Your task to perform on an android device: What's the weather? Image 0: 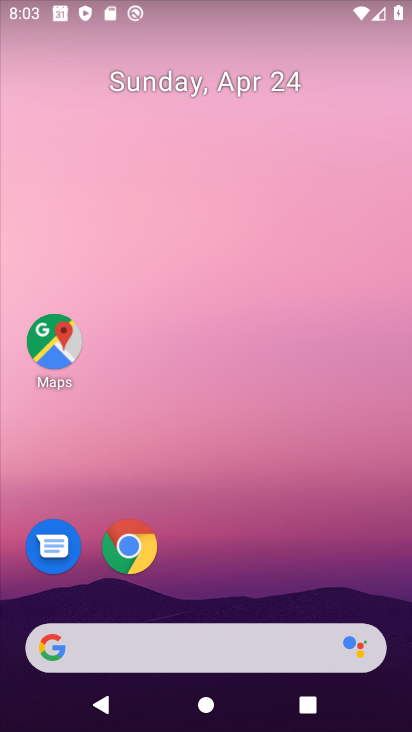
Step 0: drag from (300, 547) to (308, 217)
Your task to perform on an android device: What's the weather? Image 1: 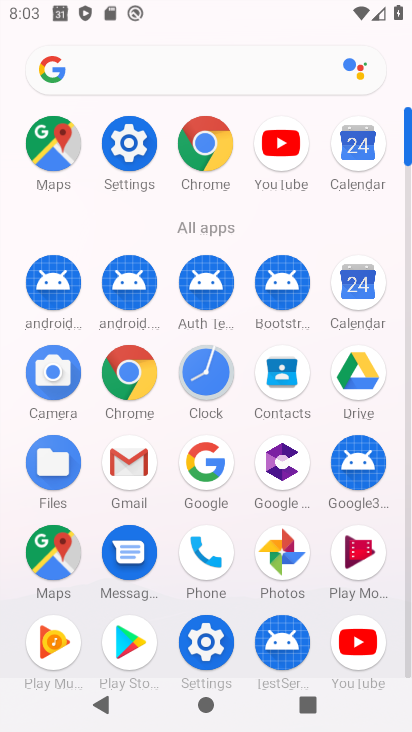
Step 1: click (178, 87)
Your task to perform on an android device: What's the weather? Image 2: 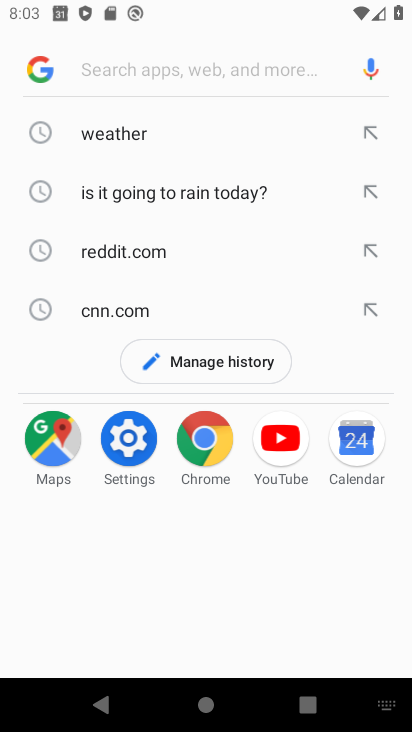
Step 2: click (165, 117)
Your task to perform on an android device: What's the weather? Image 3: 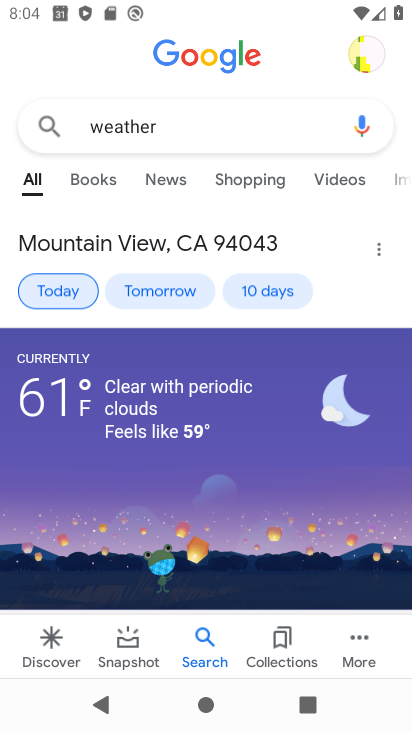
Step 3: task complete